Your task to perform on an android device: toggle pop-ups in chrome Image 0: 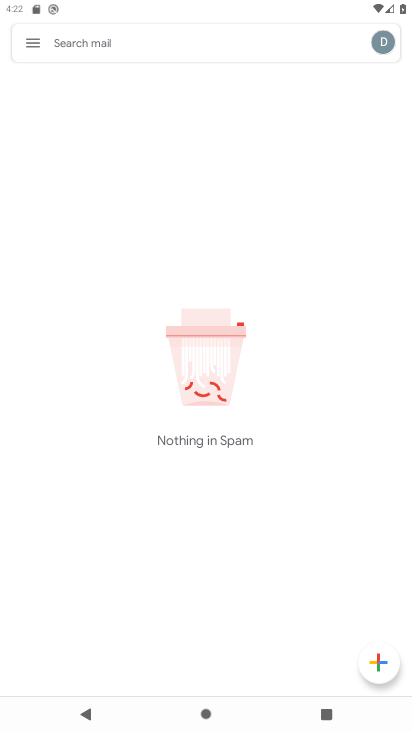
Step 0: press home button
Your task to perform on an android device: toggle pop-ups in chrome Image 1: 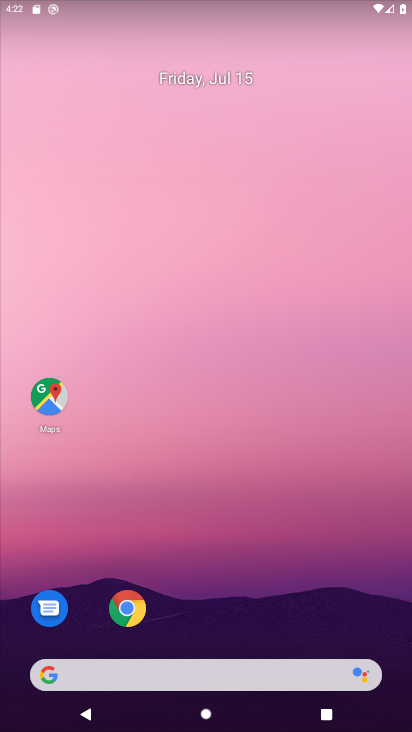
Step 1: drag from (215, 616) to (230, 13)
Your task to perform on an android device: toggle pop-ups in chrome Image 2: 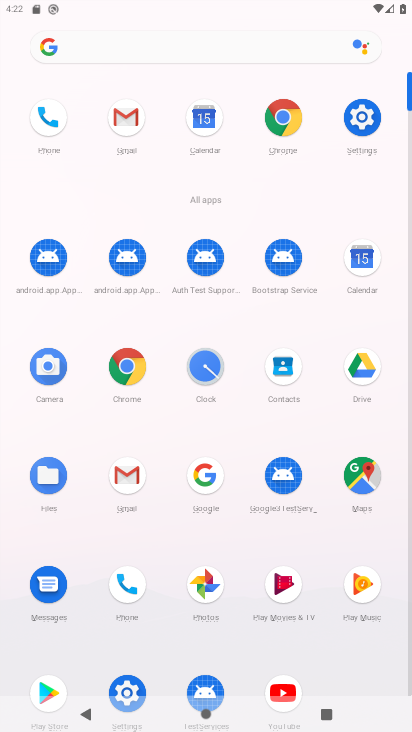
Step 2: click (116, 368)
Your task to perform on an android device: toggle pop-ups in chrome Image 3: 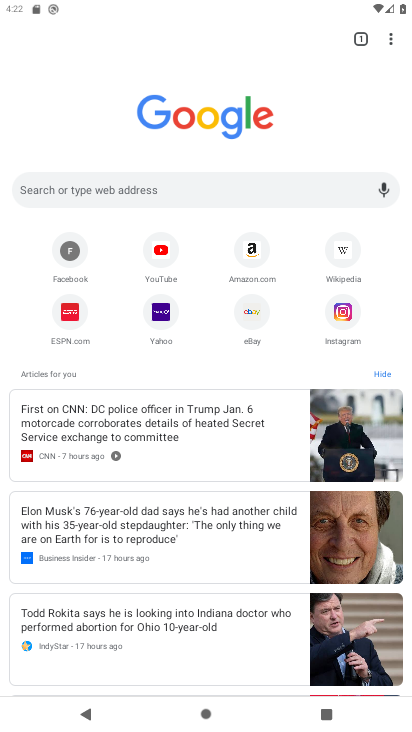
Step 3: click (387, 36)
Your task to perform on an android device: toggle pop-ups in chrome Image 4: 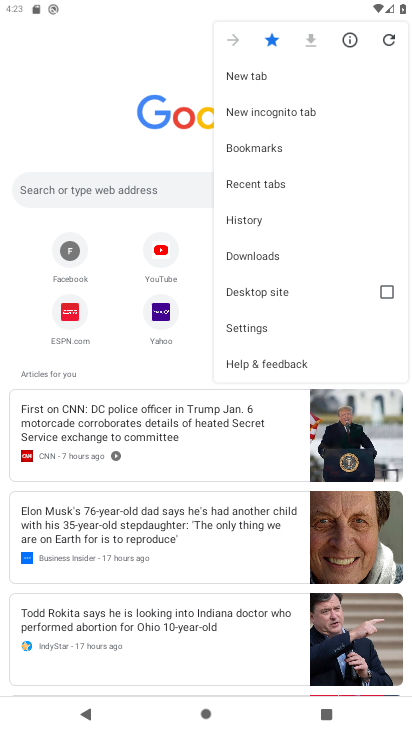
Step 4: click (249, 323)
Your task to perform on an android device: toggle pop-ups in chrome Image 5: 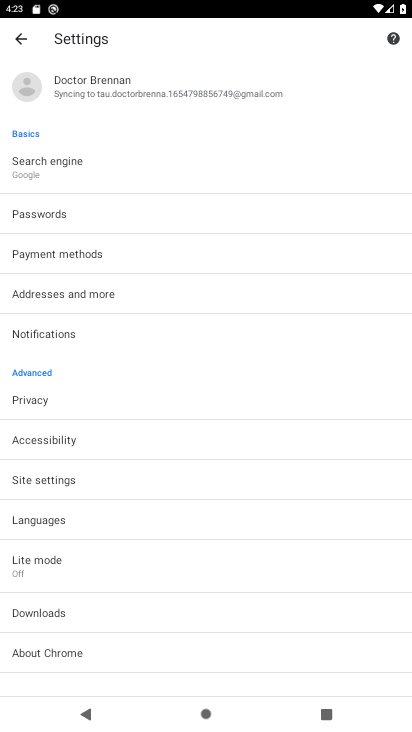
Step 5: click (56, 475)
Your task to perform on an android device: toggle pop-ups in chrome Image 6: 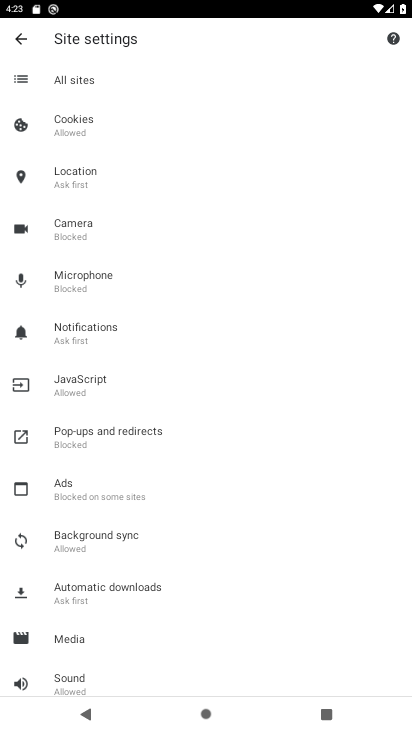
Step 6: click (118, 434)
Your task to perform on an android device: toggle pop-ups in chrome Image 7: 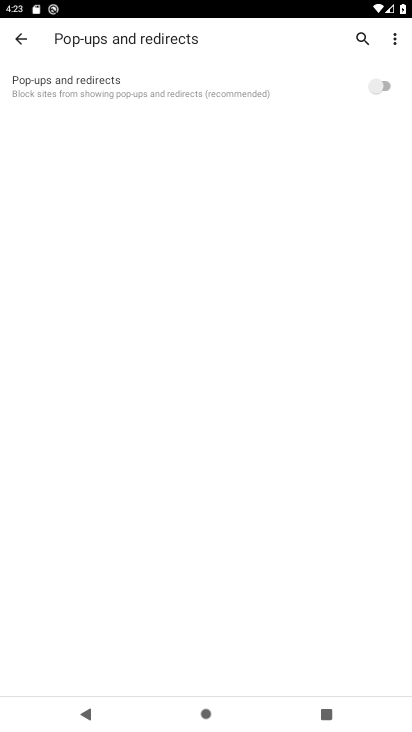
Step 7: click (388, 87)
Your task to perform on an android device: toggle pop-ups in chrome Image 8: 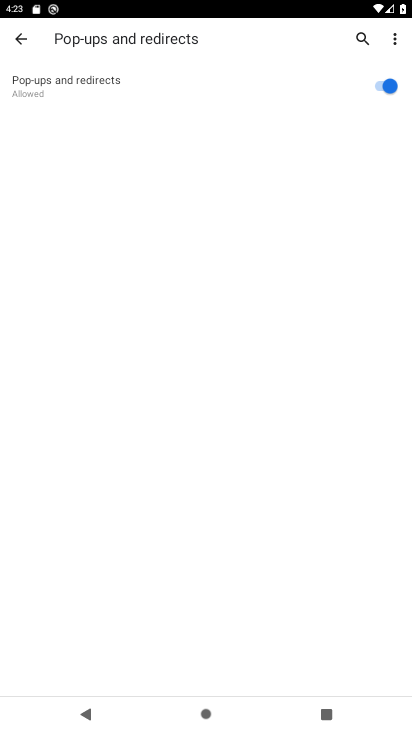
Step 8: task complete